Your task to perform on an android device: uninstall "YouTube Kids" Image 0: 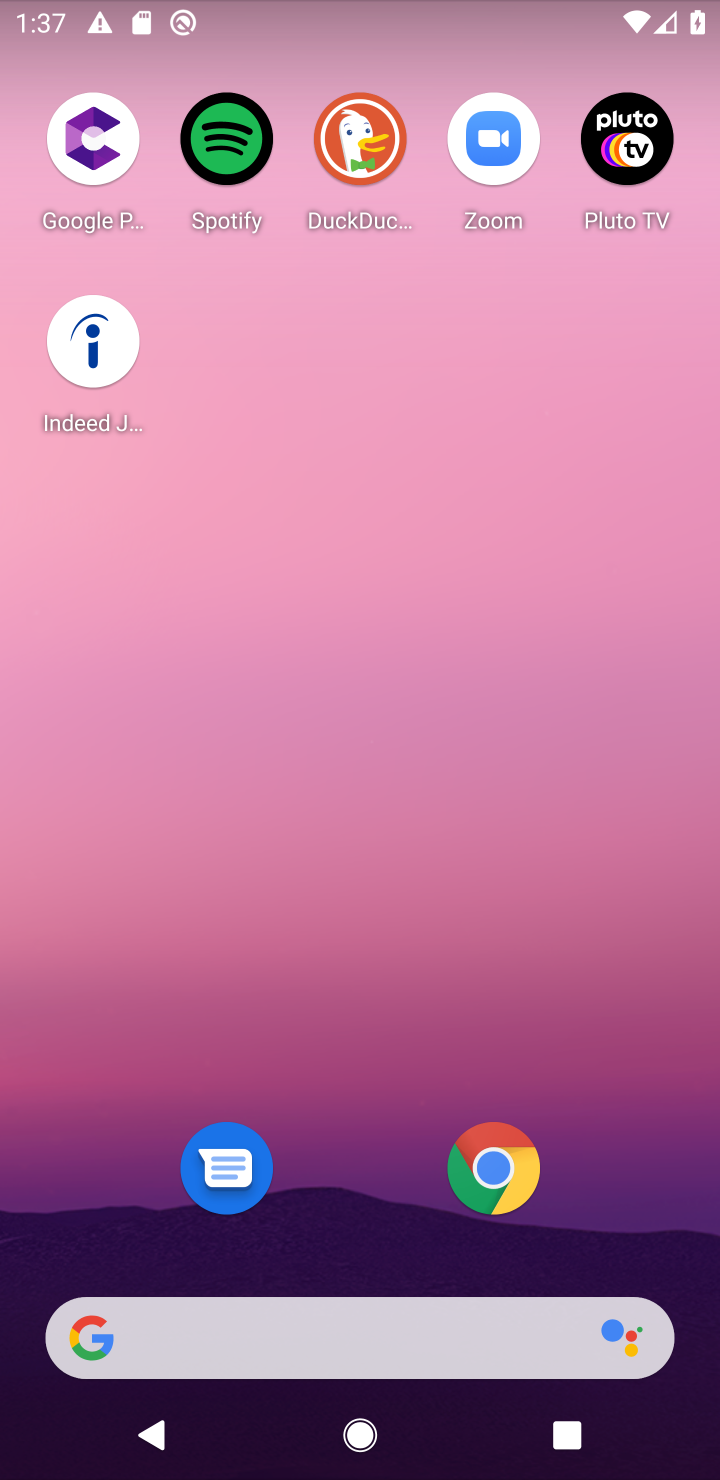
Step 0: drag from (647, 1240) to (496, 55)
Your task to perform on an android device: uninstall "YouTube Kids" Image 1: 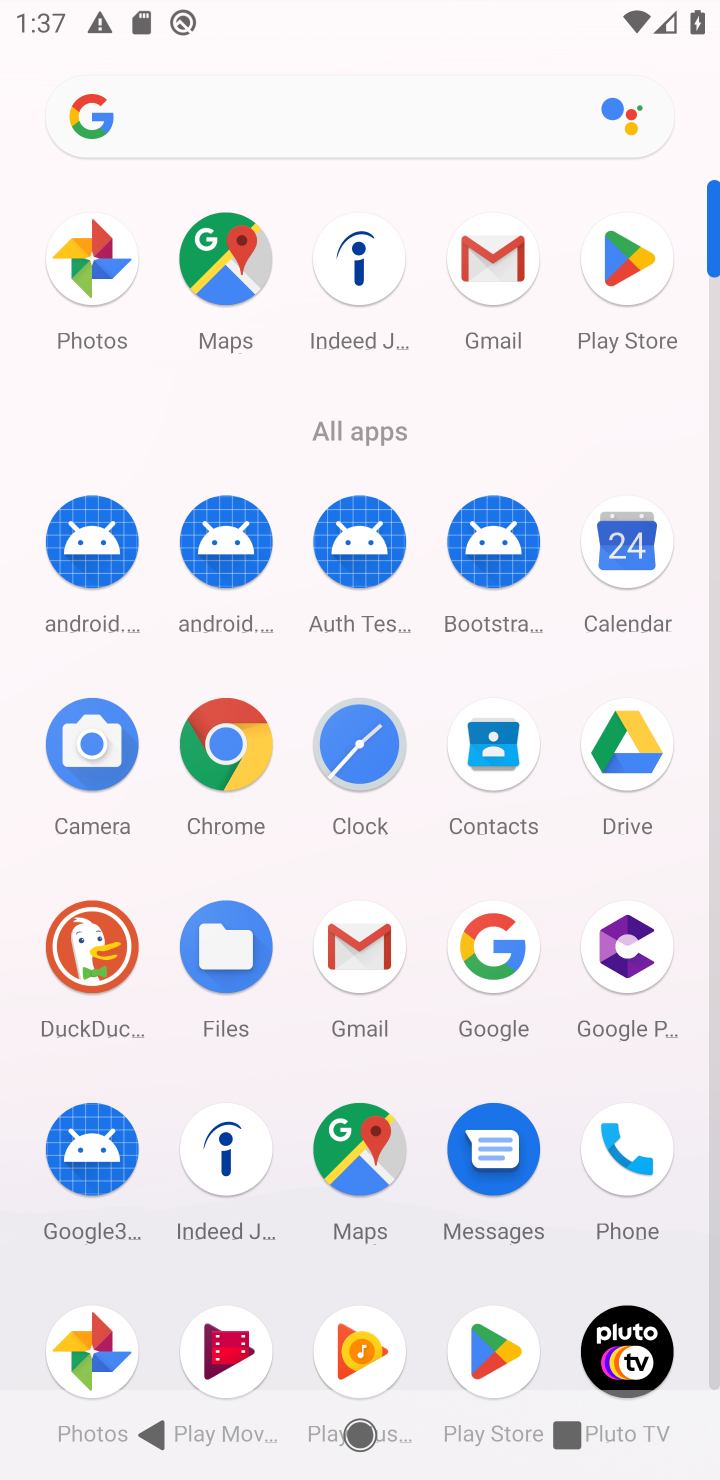
Step 1: click (492, 1349)
Your task to perform on an android device: uninstall "YouTube Kids" Image 2: 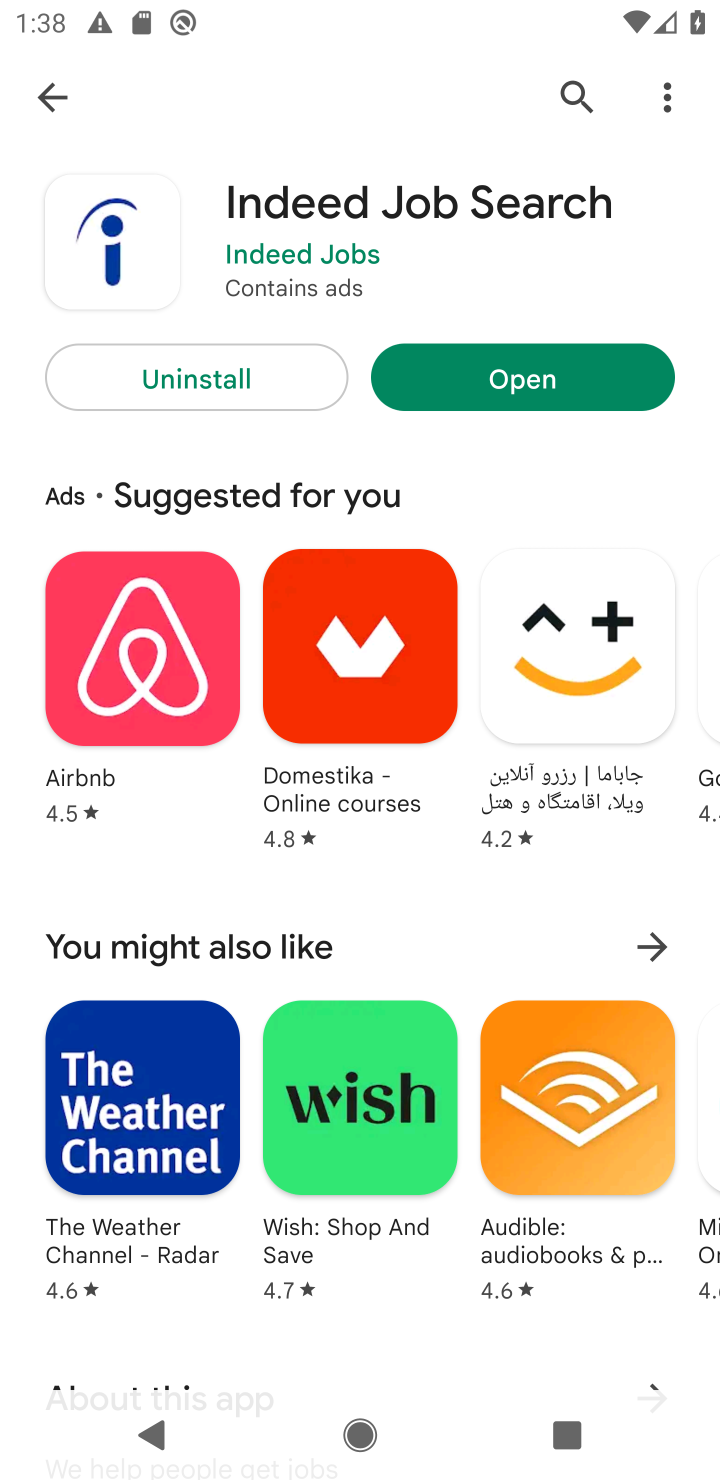
Step 2: click (563, 93)
Your task to perform on an android device: uninstall "YouTube Kids" Image 3: 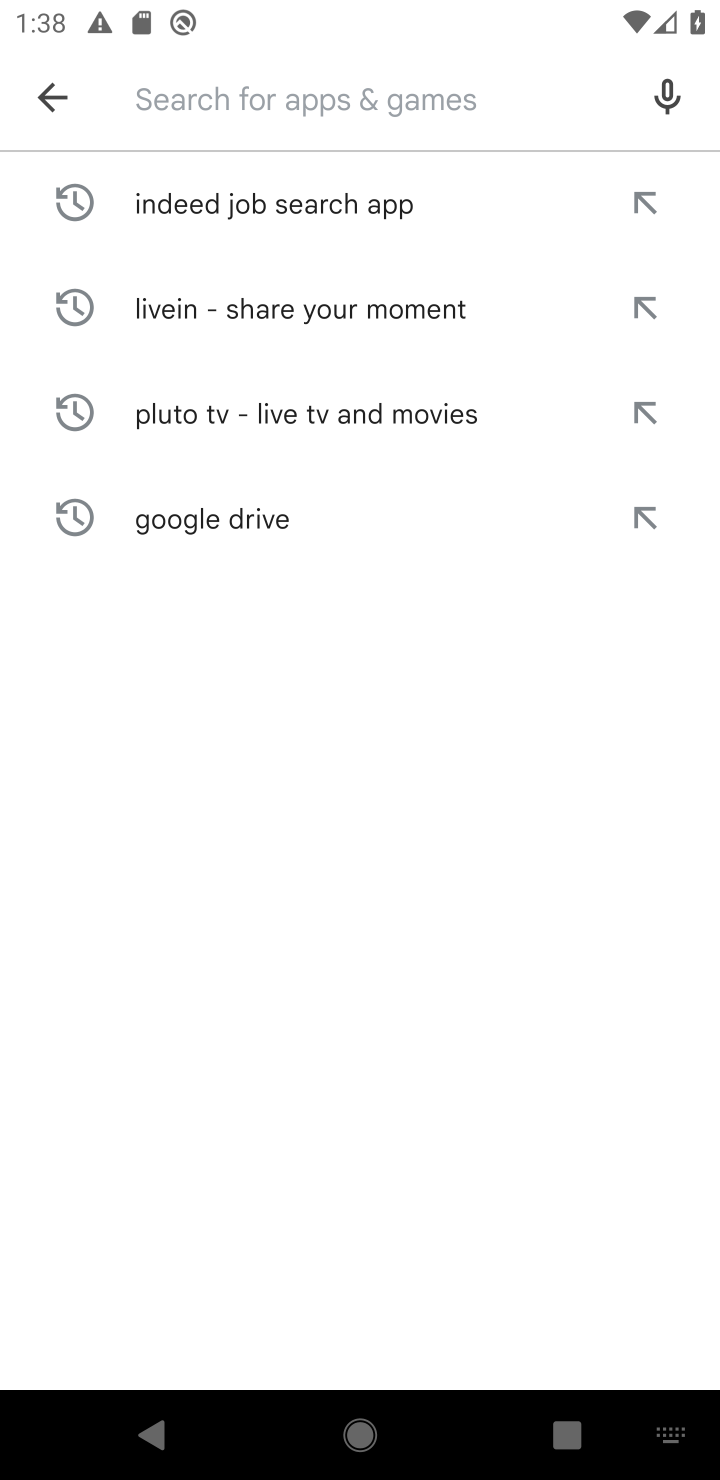
Step 3: type "YouTube Kids"
Your task to perform on an android device: uninstall "YouTube Kids" Image 4: 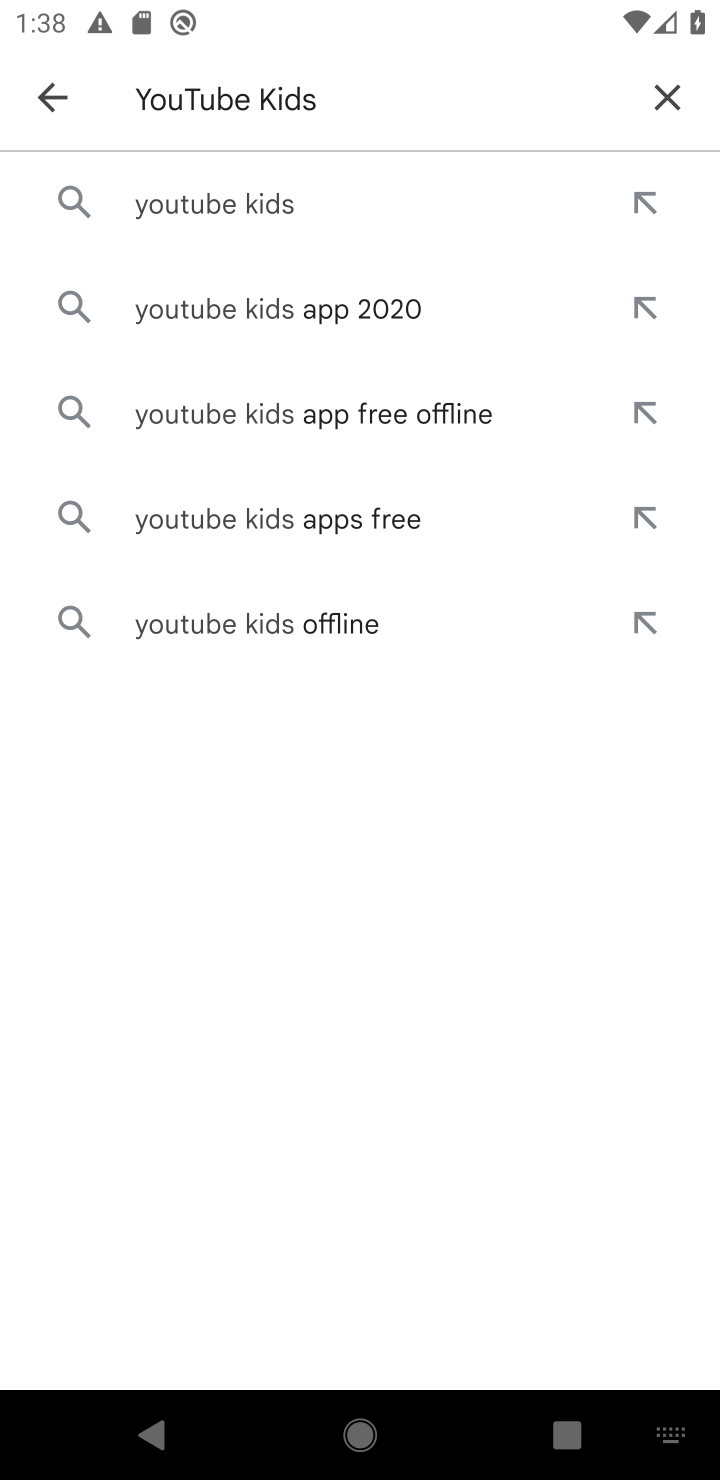
Step 4: click (248, 209)
Your task to perform on an android device: uninstall "YouTube Kids" Image 5: 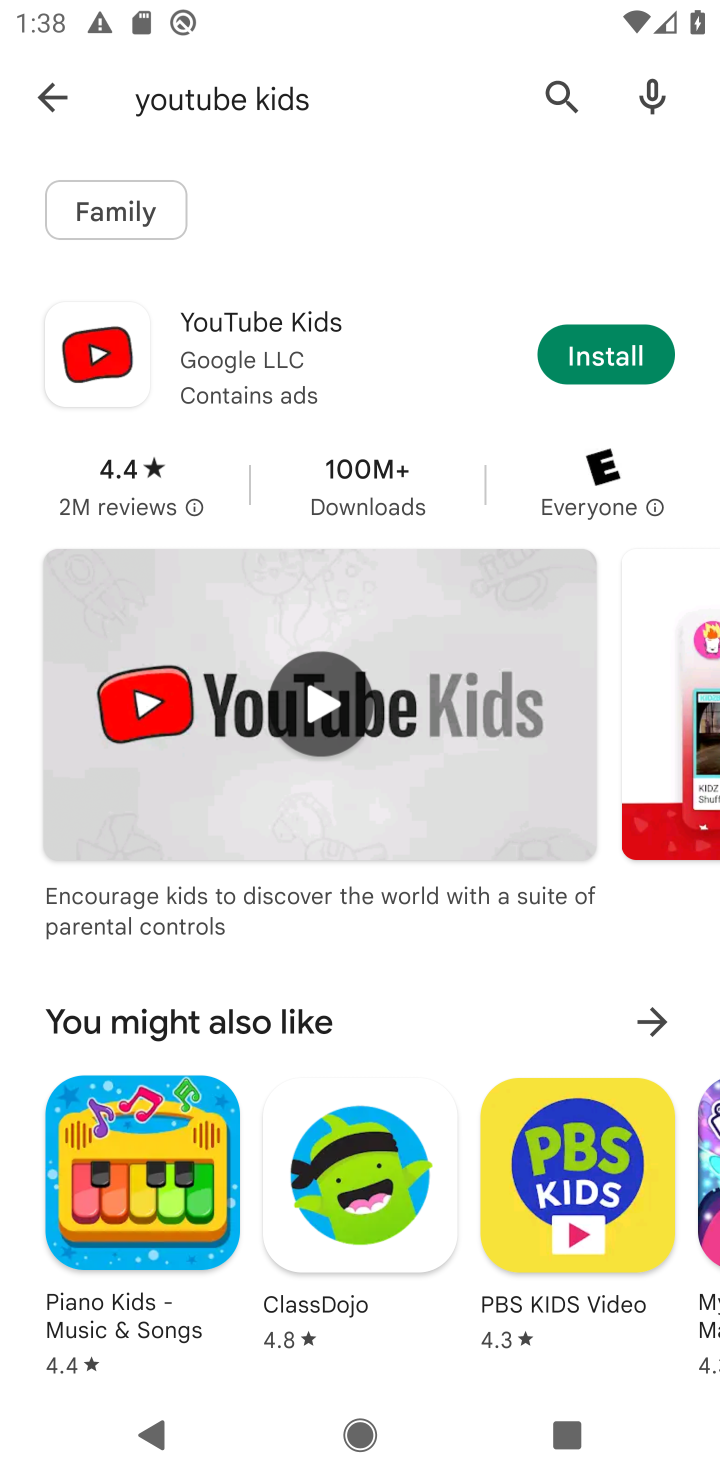
Step 5: click (216, 327)
Your task to perform on an android device: uninstall "YouTube Kids" Image 6: 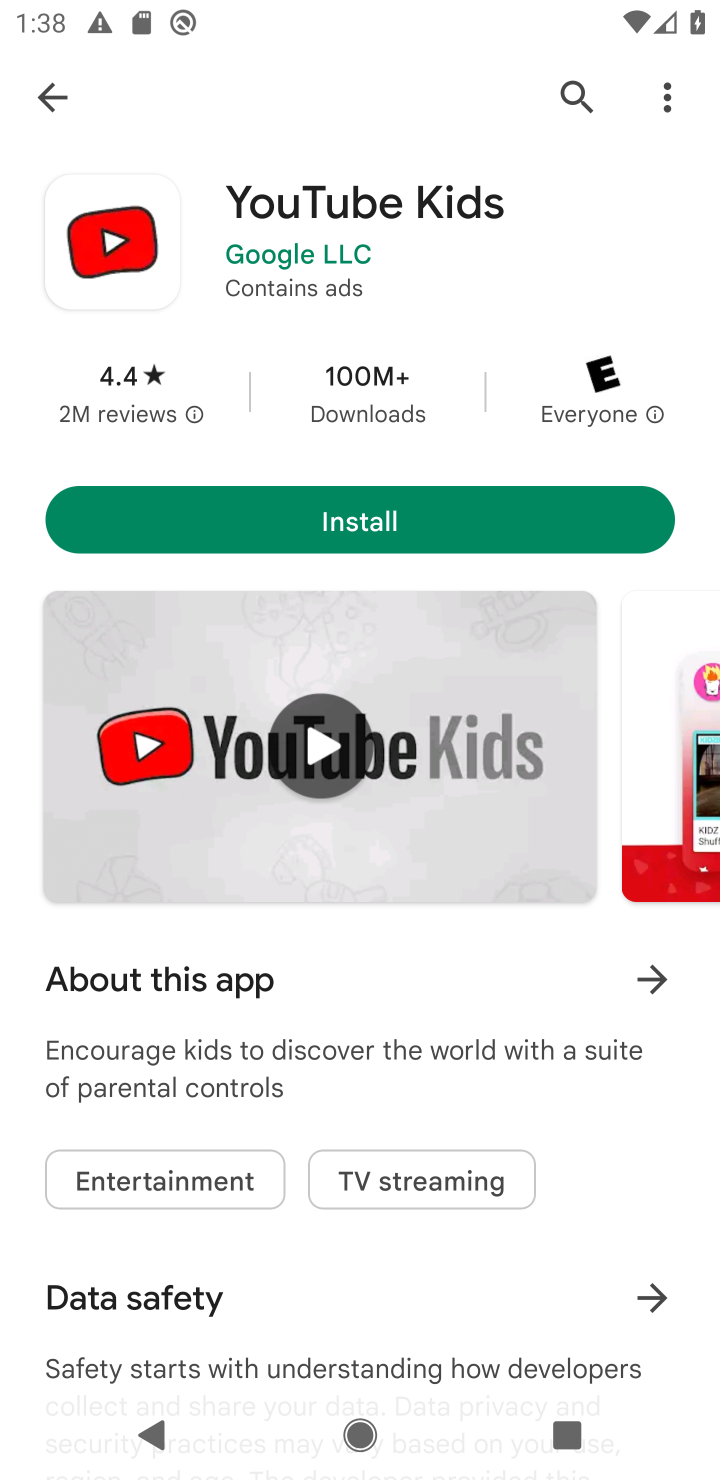
Step 6: task complete